Your task to perform on an android device: turn on airplane mode Image 0: 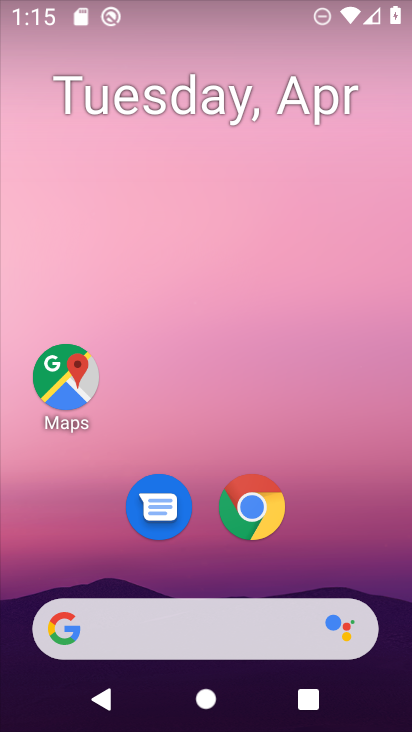
Step 0: drag from (313, 548) to (255, 6)
Your task to perform on an android device: turn on airplane mode Image 1: 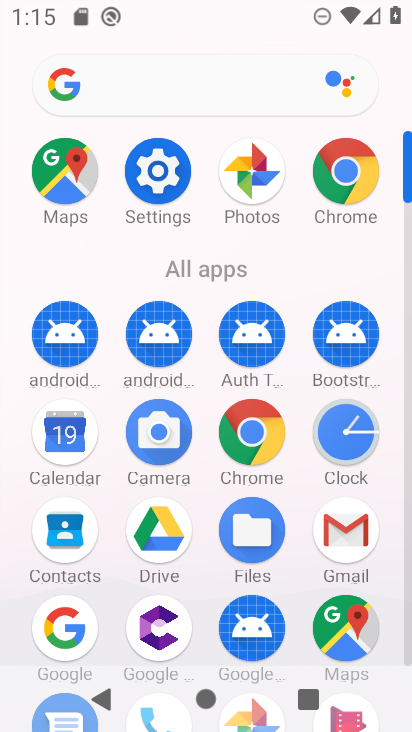
Step 1: click (159, 175)
Your task to perform on an android device: turn on airplane mode Image 2: 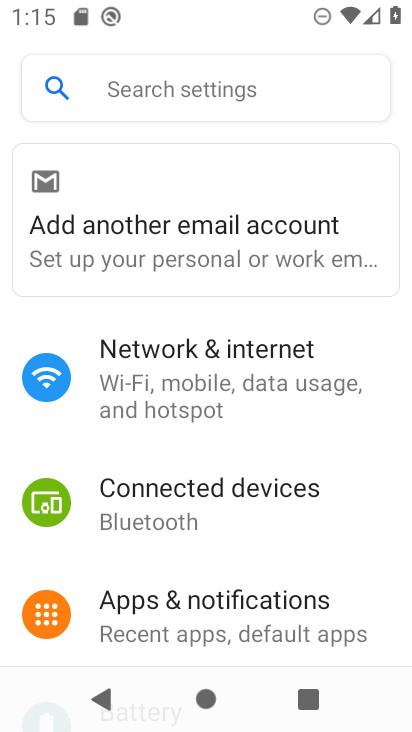
Step 2: drag from (257, 558) to (246, 177)
Your task to perform on an android device: turn on airplane mode Image 3: 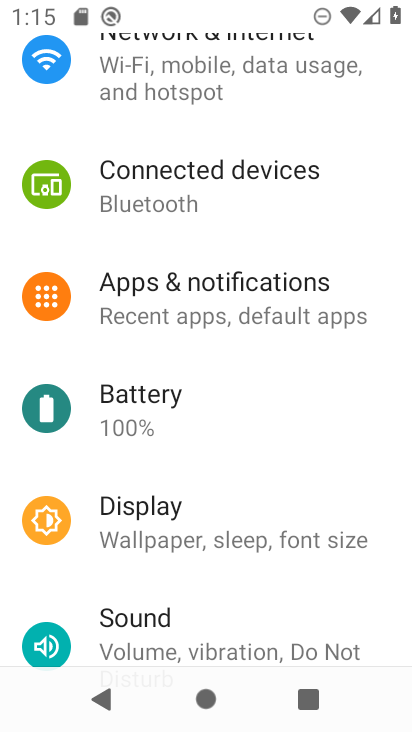
Step 3: drag from (248, 600) to (265, 190)
Your task to perform on an android device: turn on airplane mode Image 4: 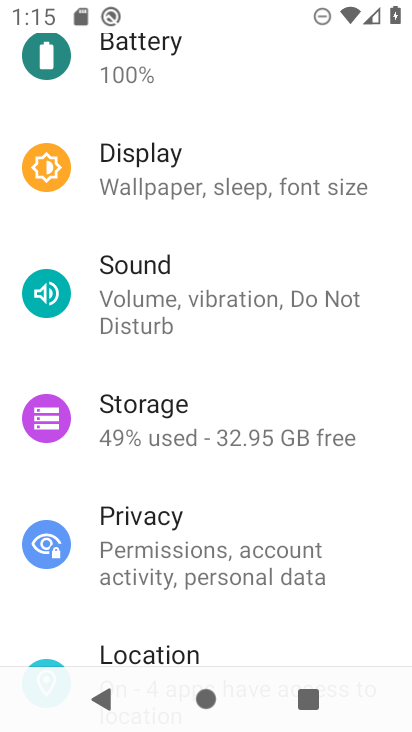
Step 4: drag from (252, 609) to (229, 690)
Your task to perform on an android device: turn on airplane mode Image 5: 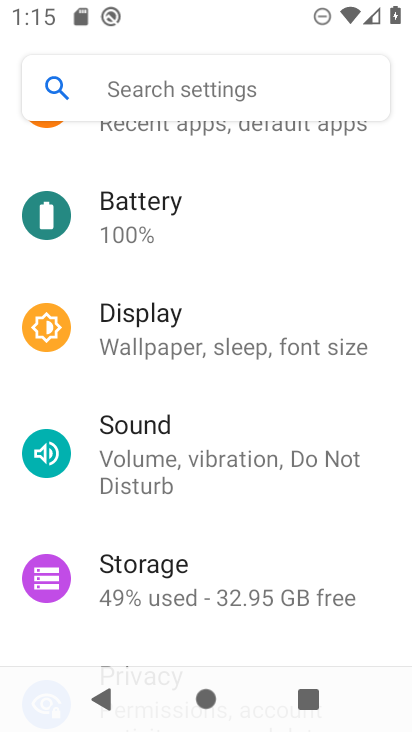
Step 5: drag from (257, 251) to (340, 416)
Your task to perform on an android device: turn on airplane mode Image 6: 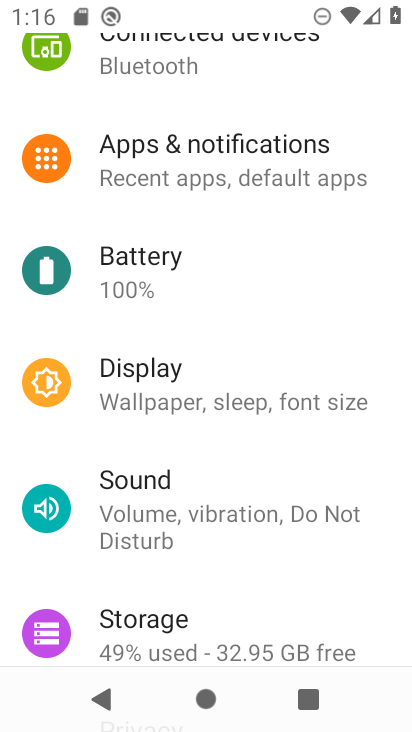
Step 6: click (218, 238)
Your task to perform on an android device: turn on airplane mode Image 7: 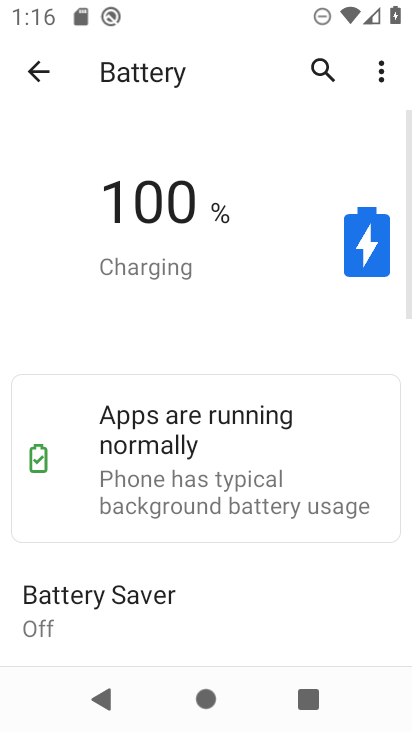
Step 7: click (108, 698)
Your task to perform on an android device: turn on airplane mode Image 8: 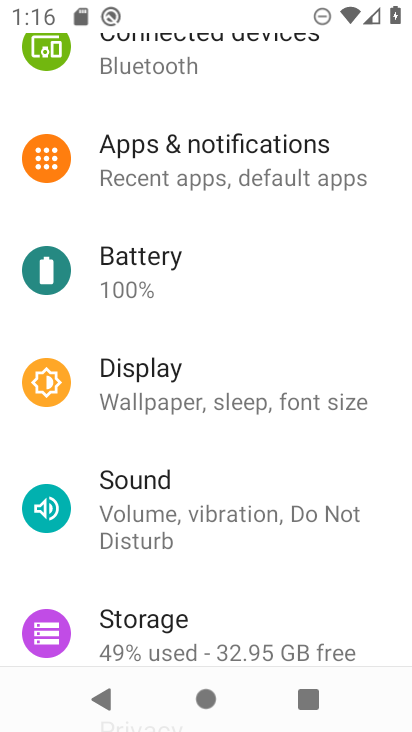
Step 8: drag from (254, 122) to (349, 596)
Your task to perform on an android device: turn on airplane mode Image 9: 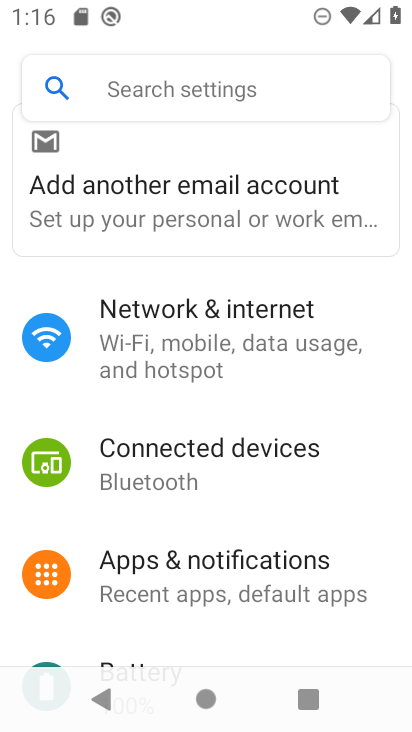
Step 9: click (262, 364)
Your task to perform on an android device: turn on airplane mode Image 10: 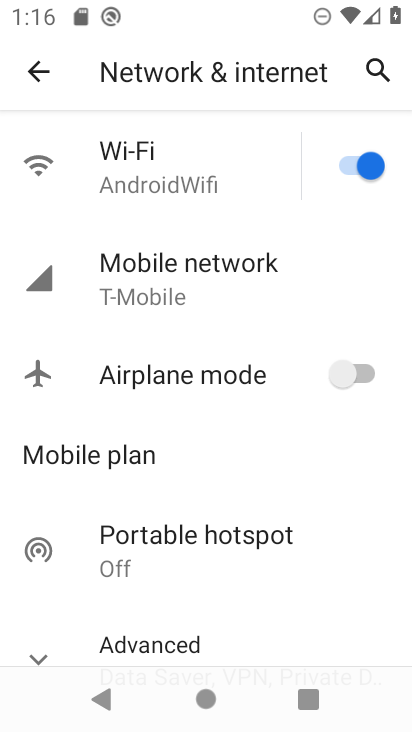
Step 10: click (342, 388)
Your task to perform on an android device: turn on airplane mode Image 11: 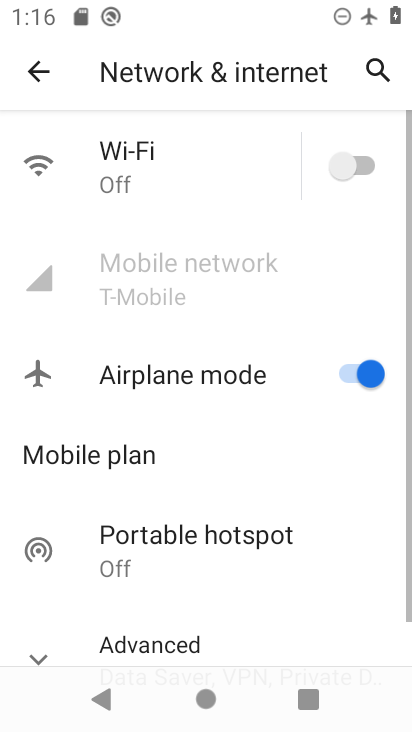
Step 11: task complete